Your task to perform on an android device: turn vacation reply on in the gmail app Image 0: 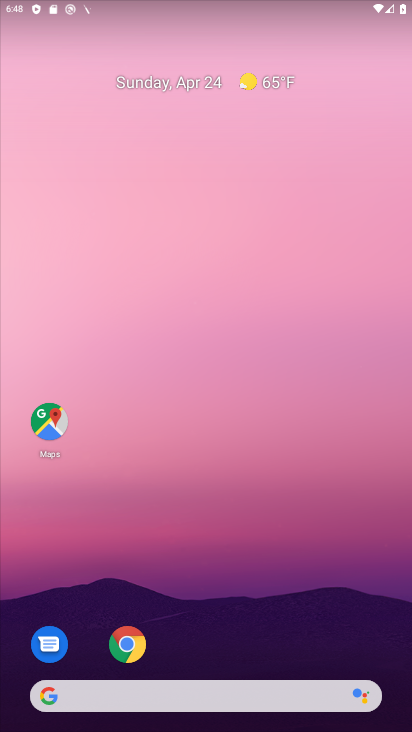
Step 0: press home button
Your task to perform on an android device: turn vacation reply on in the gmail app Image 1: 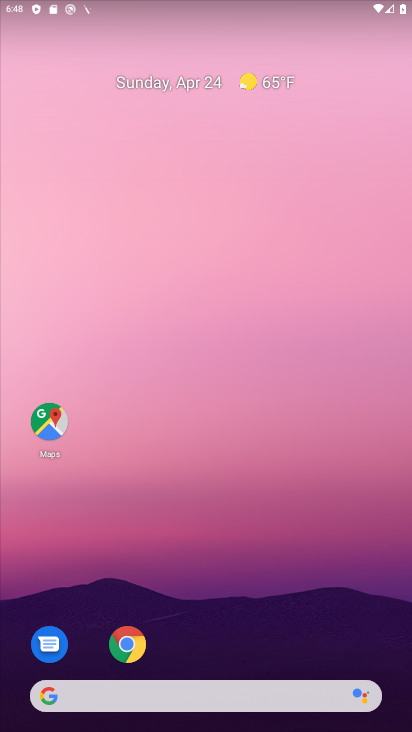
Step 1: drag from (209, 618) to (252, 131)
Your task to perform on an android device: turn vacation reply on in the gmail app Image 2: 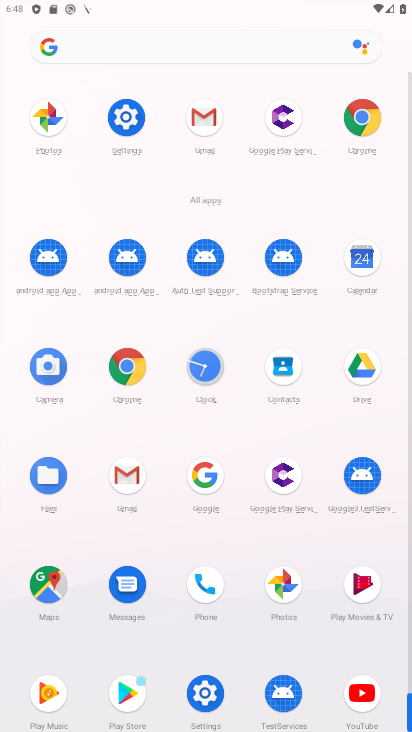
Step 2: click (128, 466)
Your task to perform on an android device: turn vacation reply on in the gmail app Image 3: 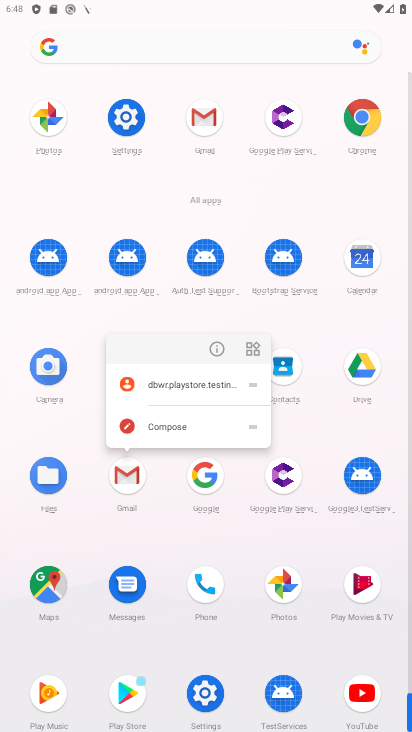
Step 3: click (124, 467)
Your task to perform on an android device: turn vacation reply on in the gmail app Image 4: 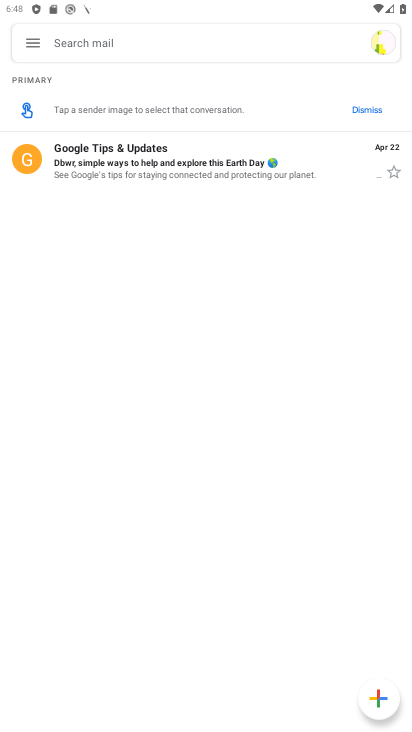
Step 4: click (28, 41)
Your task to perform on an android device: turn vacation reply on in the gmail app Image 5: 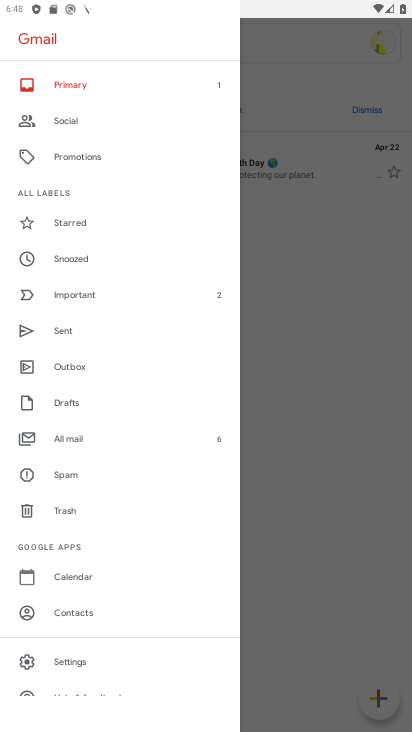
Step 5: click (96, 658)
Your task to perform on an android device: turn vacation reply on in the gmail app Image 6: 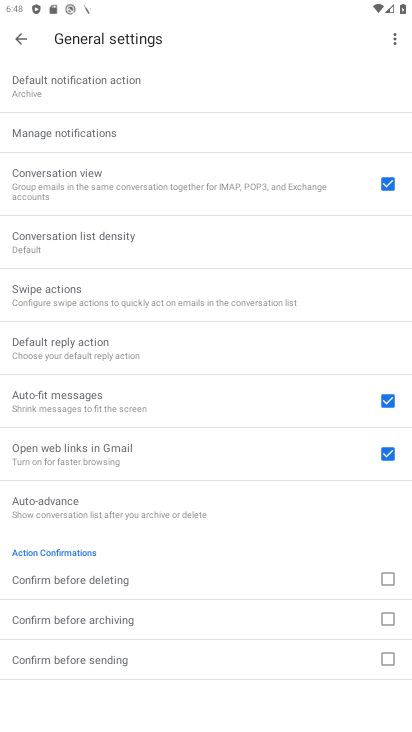
Step 6: click (18, 39)
Your task to perform on an android device: turn vacation reply on in the gmail app Image 7: 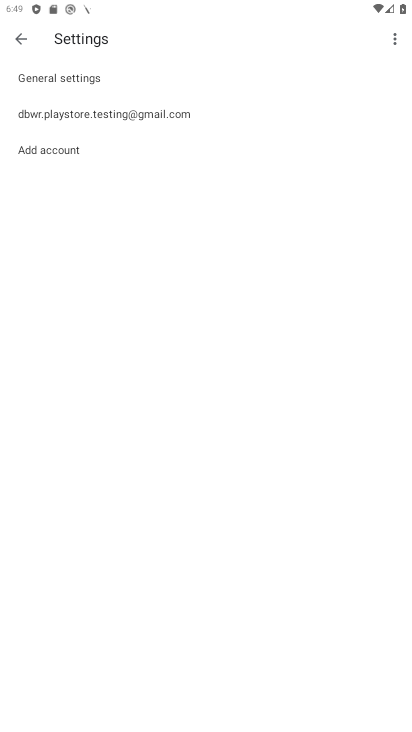
Step 7: click (88, 107)
Your task to perform on an android device: turn vacation reply on in the gmail app Image 8: 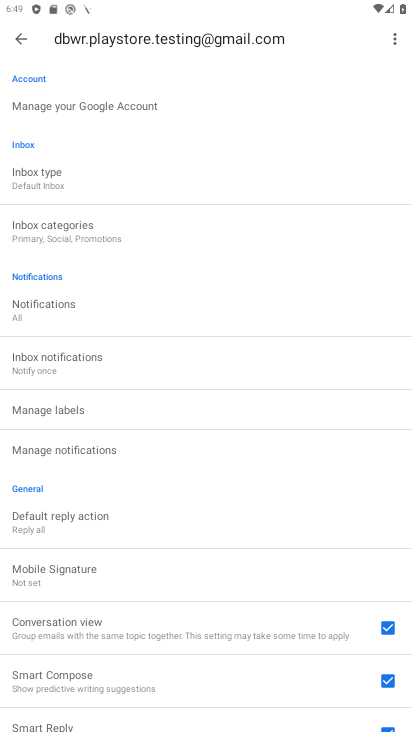
Step 8: drag from (120, 630) to (166, 277)
Your task to perform on an android device: turn vacation reply on in the gmail app Image 9: 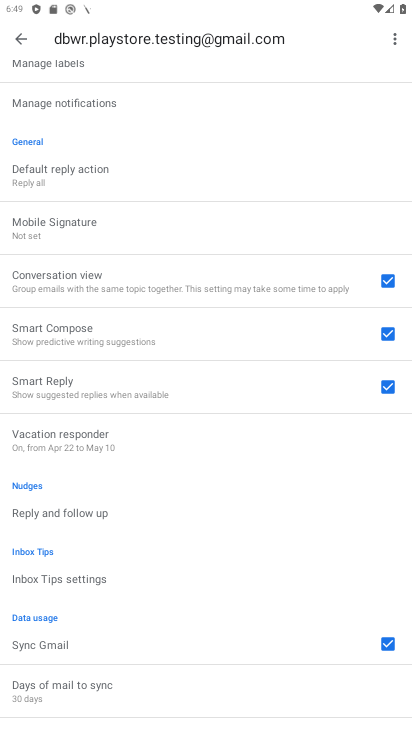
Step 9: click (120, 432)
Your task to perform on an android device: turn vacation reply on in the gmail app Image 10: 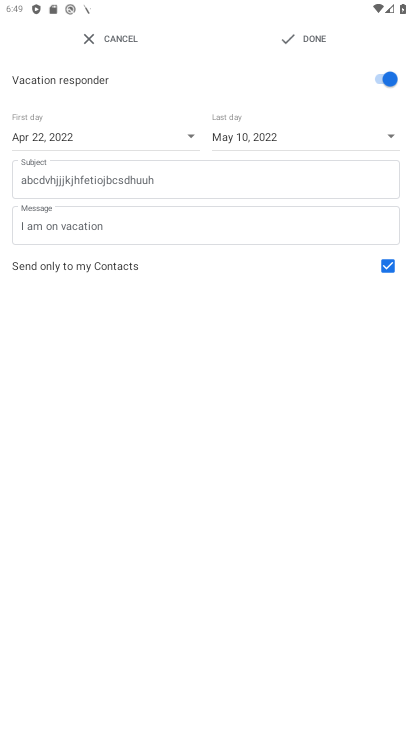
Step 10: task complete